Your task to perform on an android device: Go to battery settings Image 0: 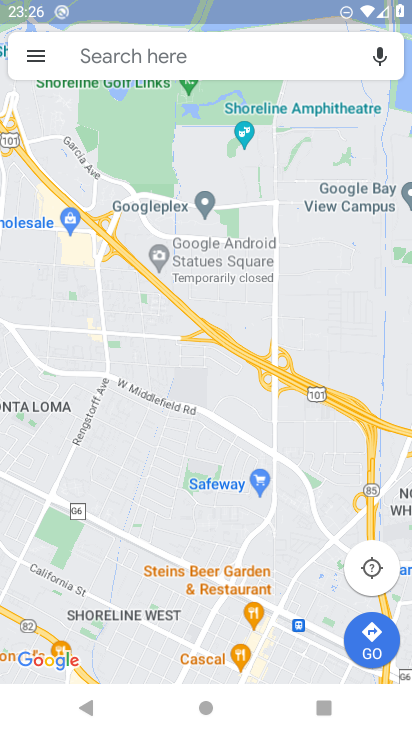
Step 0: drag from (223, 612) to (248, 261)
Your task to perform on an android device: Go to battery settings Image 1: 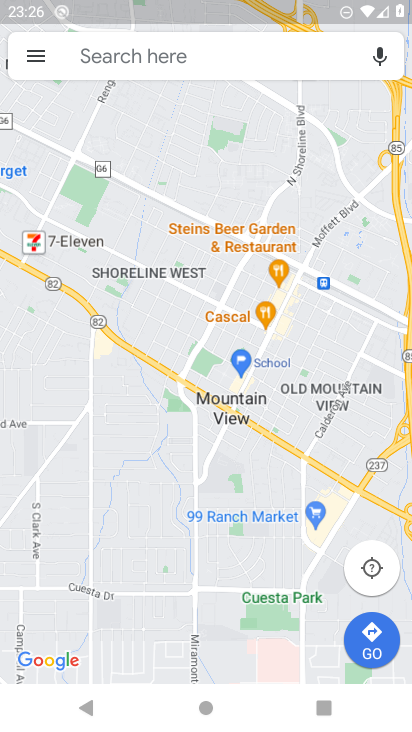
Step 1: press home button
Your task to perform on an android device: Go to battery settings Image 2: 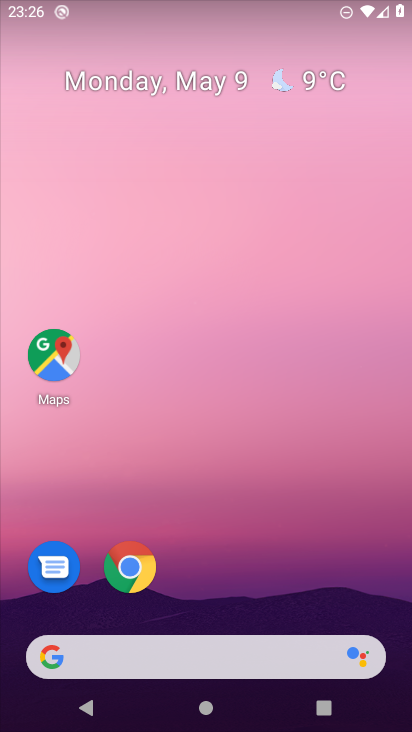
Step 2: drag from (203, 615) to (227, 54)
Your task to perform on an android device: Go to battery settings Image 3: 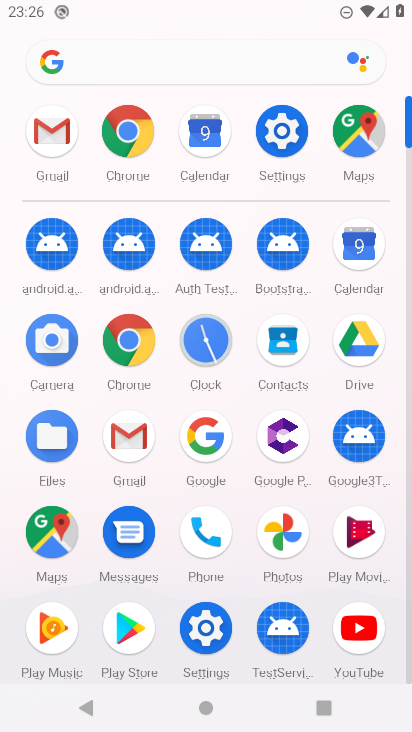
Step 3: click (280, 125)
Your task to perform on an android device: Go to battery settings Image 4: 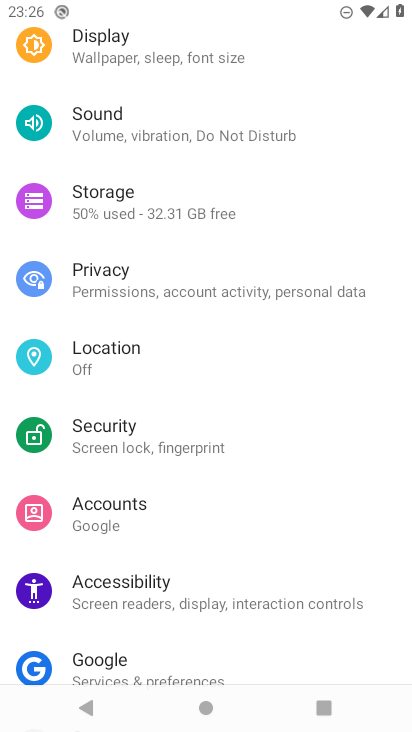
Step 4: drag from (155, 95) to (176, 645)
Your task to perform on an android device: Go to battery settings Image 5: 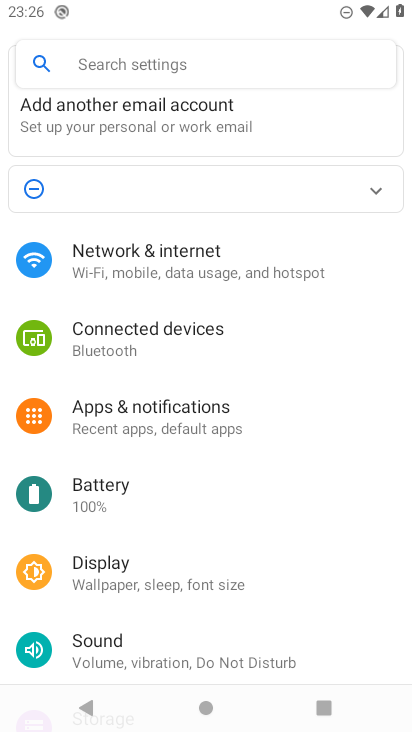
Step 5: click (135, 494)
Your task to perform on an android device: Go to battery settings Image 6: 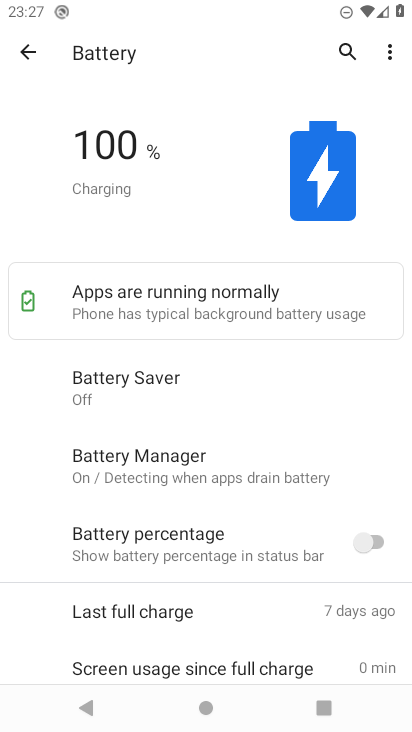
Step 6: task complete